Your task to perform on an android device: Open Chrome and go to settings Image 0: 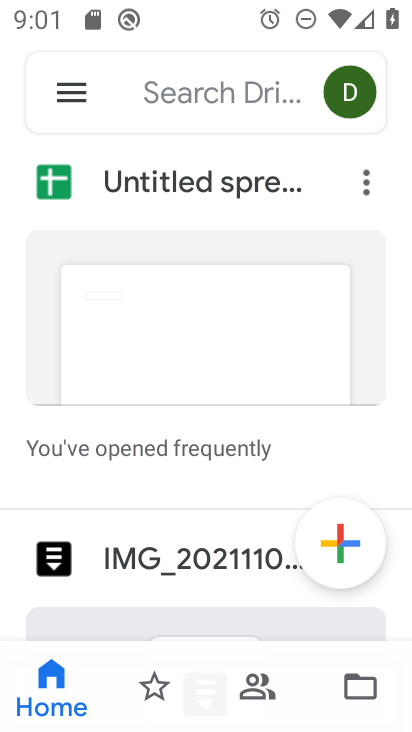
Step 0: press home button
Your task to perform on an android device: Open Chrome and go to settings Image 1: 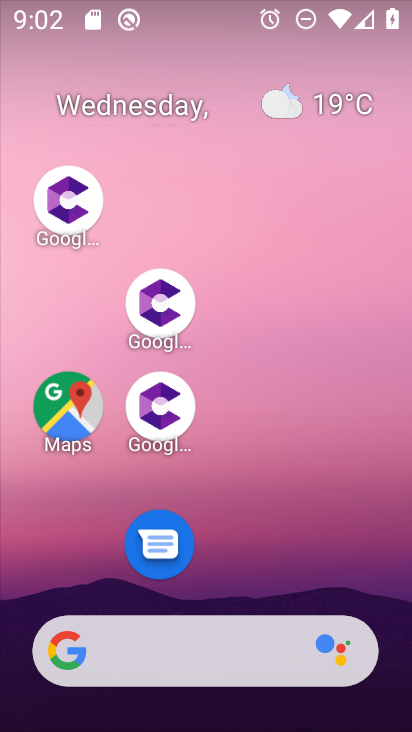
Step 1: drag from (284, 486) to (244, 72)
Your task to perform on an android device: Open Chrome and go to settings Image 2: 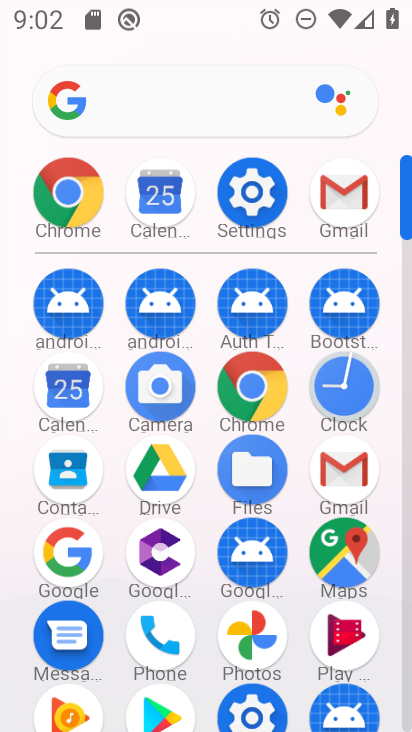
Step 2: click (255, 386)
Your task to perform on an android device: Open Chrome and go to settings Image 3: 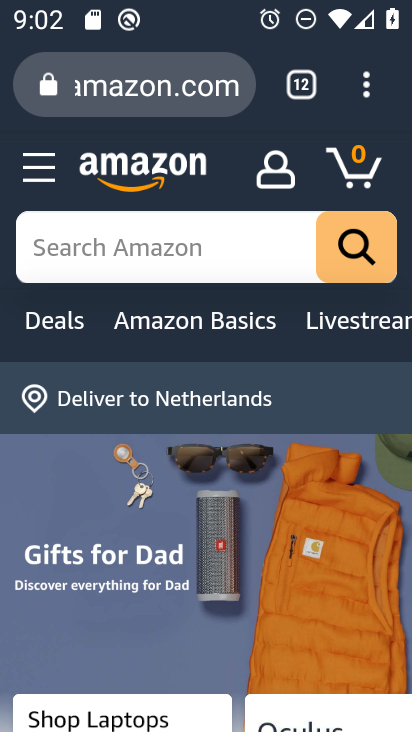
Step 3: click (363, 83)
Your task to perform on an android device: Open Chrome and go to settings Image 4: 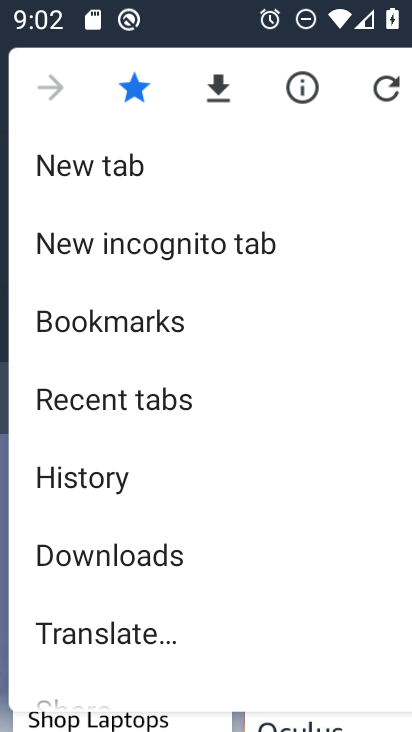
Step 4: drag from (278, 489) to (219, 209)
Your task to perform on an android device: Open Chrome and go to settings Image 5: 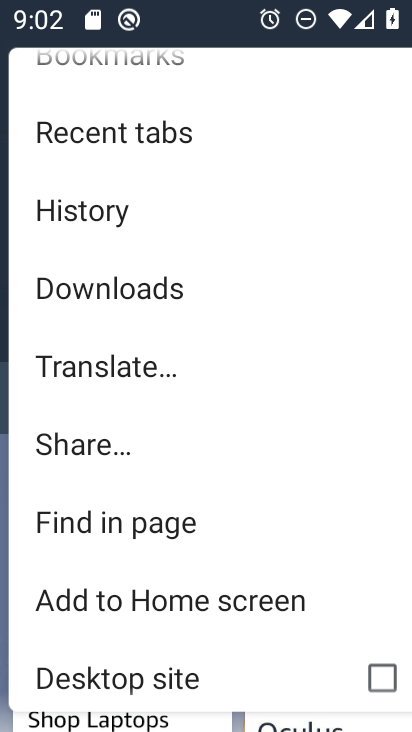
Step 5: drag from (286, 490) to (193, 157)
Your task to perform on an android device: Open Chrome and go to settings Image 6: 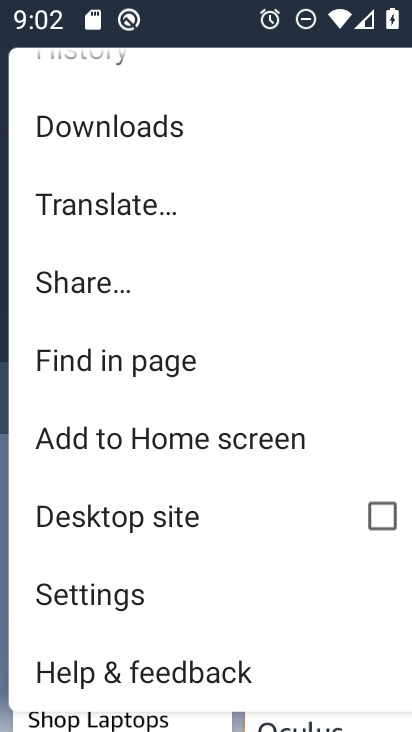
Step 6: click (100, 587)
Your task to perform on an android device: Open Chrome and go to settings Image 7: 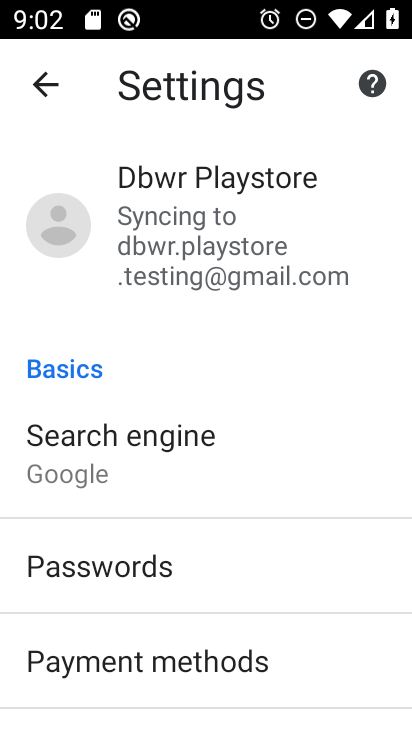
Step 7: task complete